Your task to perform on an android device: turn smart compose on in the gmail app Image 0: 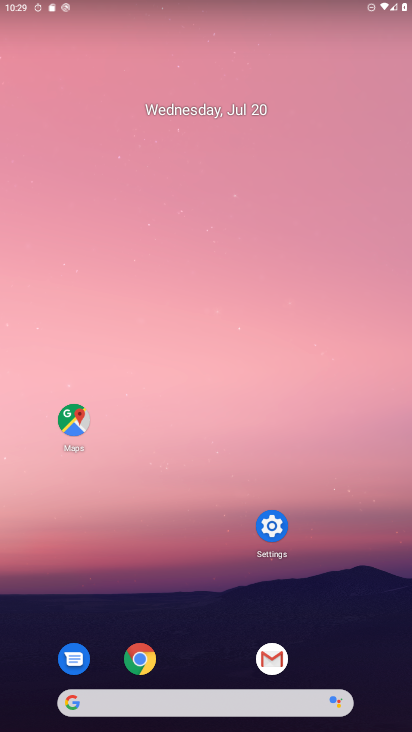
Step 0: click (270, 651)
Your task to perform on an android device: turn smart compose on in the gmail app Image 1: 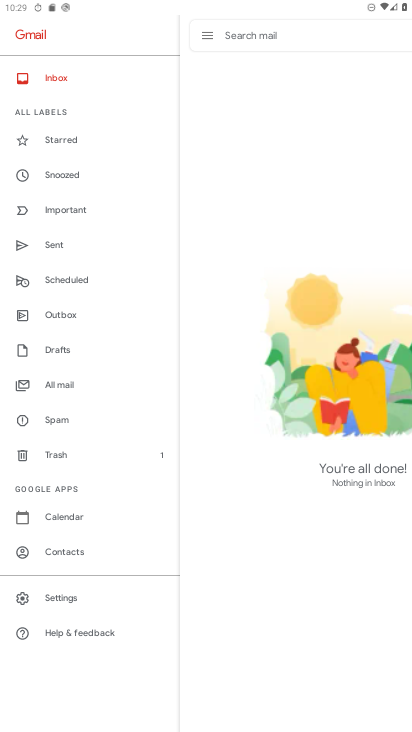
Step 1: click (61, 592)
Your task to perform on an android device: turn smart compose on in the gmail app Image 2: 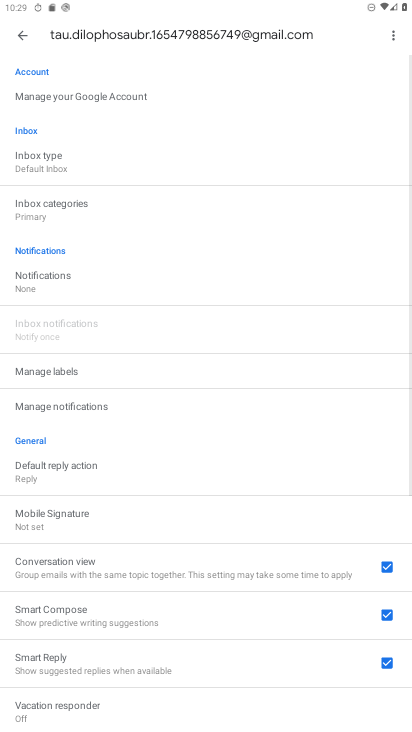
Step 2: drag from (229, 605) to (269, 337)
Your task to perform on an android device: turn smart compose on in the gmail app Image 3: 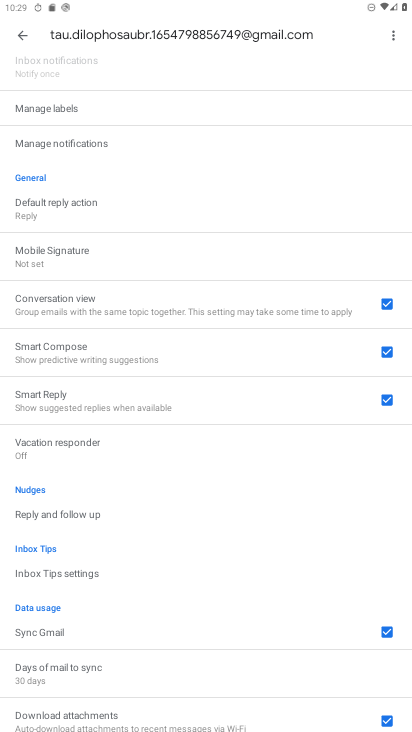
Step 3: click (308, 353)
Your task to perform on an android device: turn smart compose on in the gmail app Image 4: 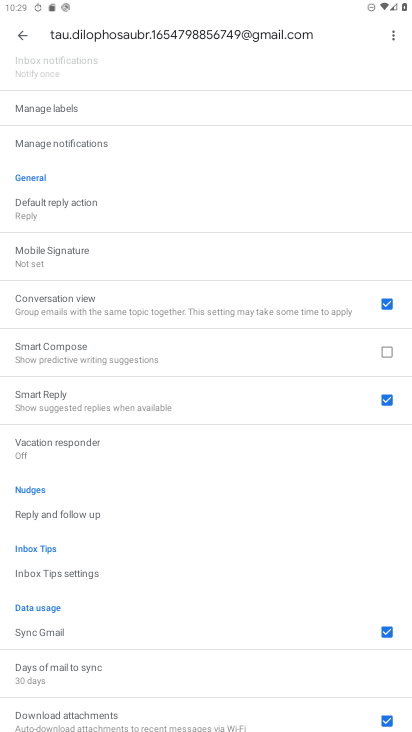
Step 4: click (305, 354)
Your task to perform on an android device: turn smart compose on in the gmail app Image 5: 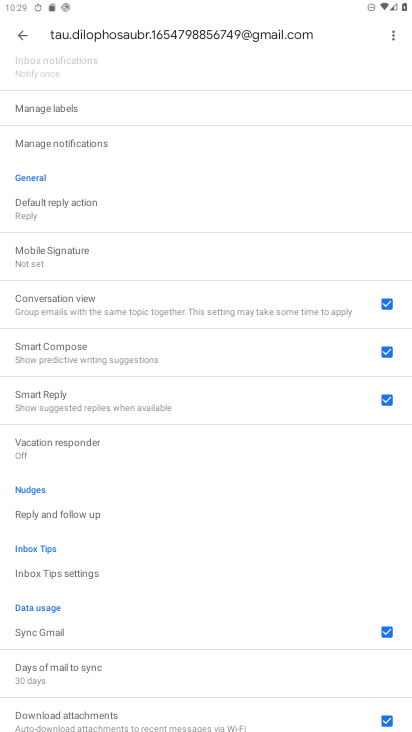
Step 5: task complete